Your task to perform on an android device: turn on notifications settings in the gmail app Image 0: 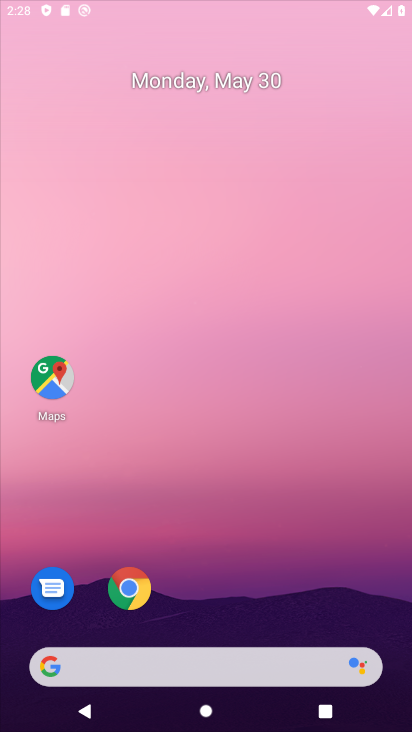
Step 0: click (279, 201)
Your task to perform on an android device: turn on notifications settings in the gmail app Image 1: 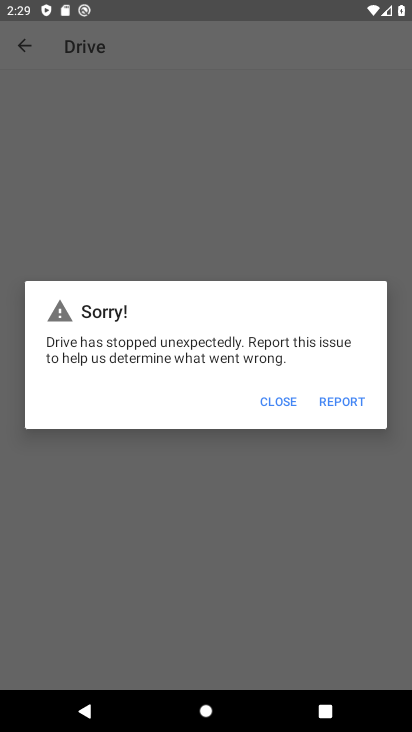
Step 1: click (266, 399)
Your task to perform on an android device: turn on notifications settings in the gmail app Image 2: 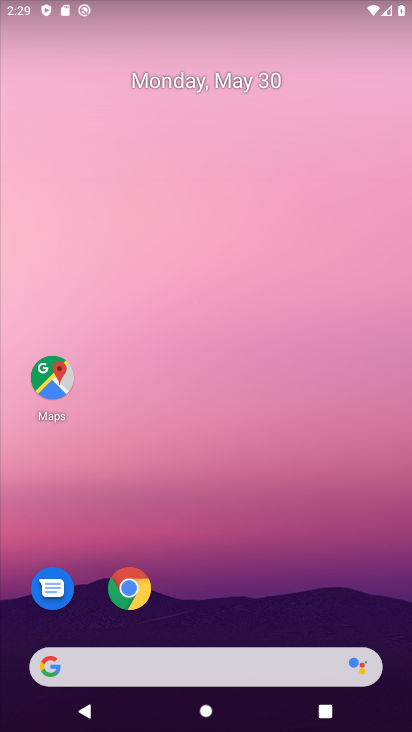
Step 2: drag from (182, 621) to (211, 147)
Your task to perform on an android device: turn on notifications settings in the gmail app Image 3: 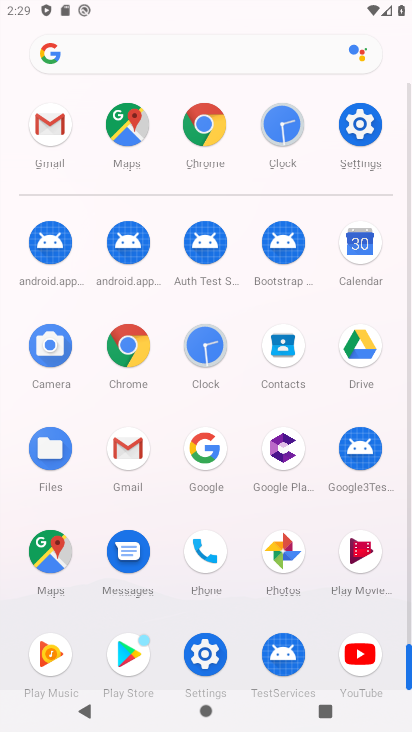
Step 3: click (130, 445)
Your task to perform on an android device: turn on notifications settings in the gmail app Image 4: 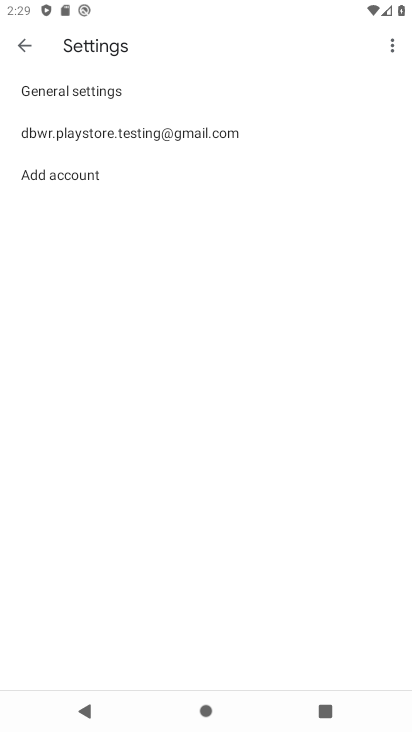
Step 4: click (114, 124)
Your task to perform on an android device: turn on notifications settings in the gmail app Image 5: 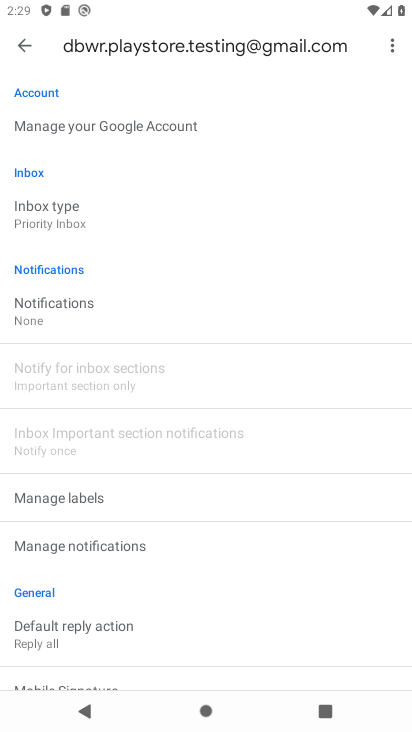
Step 5: drag from (92, 598) to (102, 458)
Your task to perform on an android device: turn on notifications settings in the gmail app Image 6: 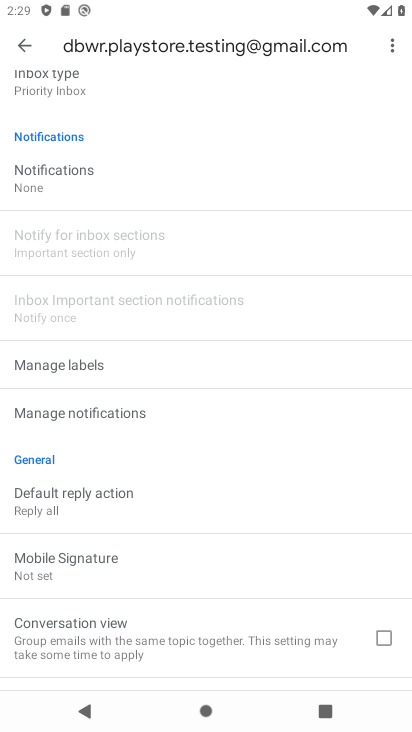
Step 6: click (68, 157)
Your task to perform on an android device: turn on notifications settings in the gmail app Image 7: 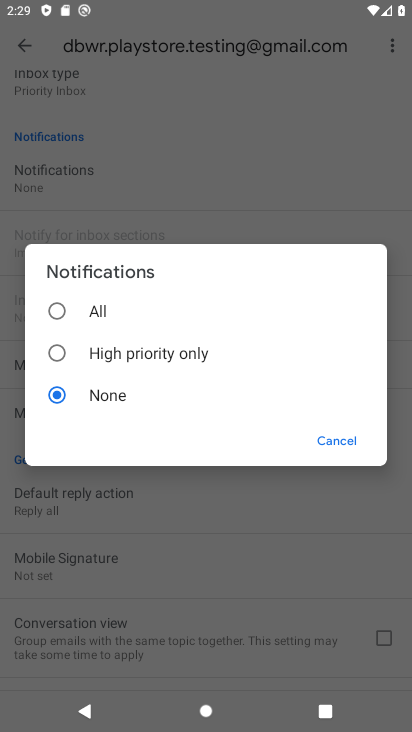
Step 7: click (85, 308)
Your task to perform on an android device: turn on notifications settings in the gmail app Image 8: 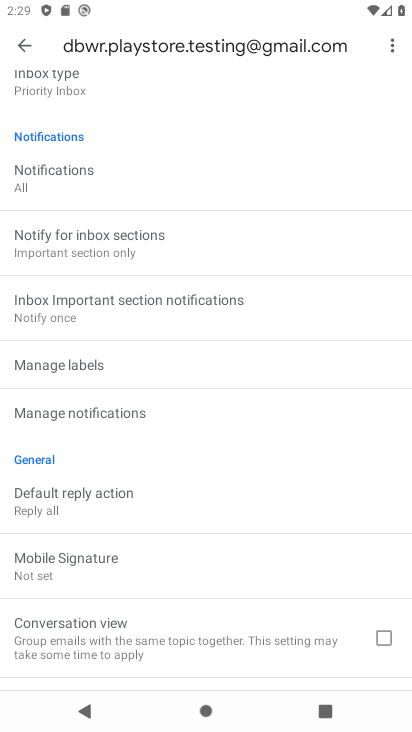
Step 8: task complete